Your task to perform on an android device: open chrome and create a bookmark for the current page Image 0: 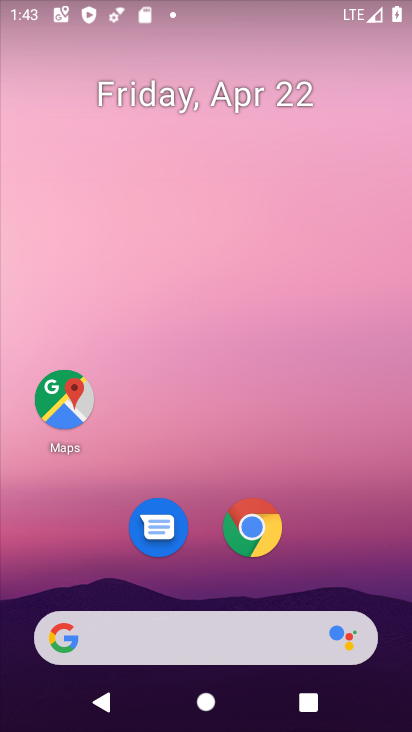
Step 0: click (252, 528)
Your task to perform on an android device: open chrome and create a bookmark for the current page Image 1: 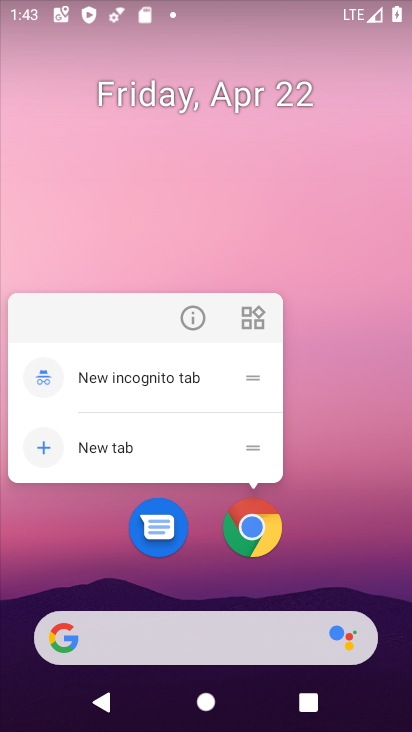
Step 1: click (252, 528)
Your task to perform on an android device: open chrome and create a bookmark for the current page Image 2: 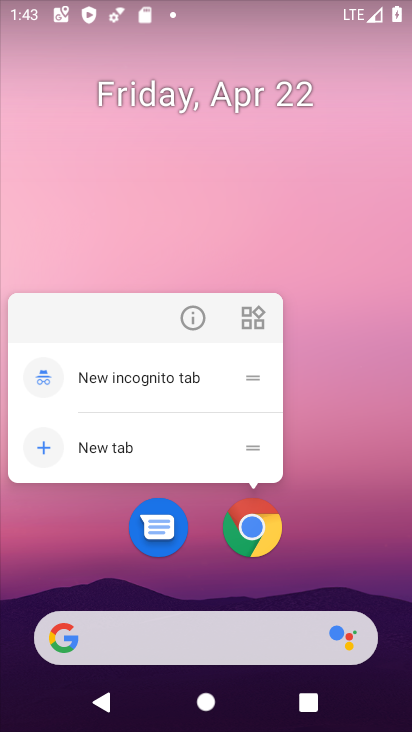
Step 2: click (252, 528)
Your task to perform on an android device: open chrome and create a bookmark for the current page Image 3: 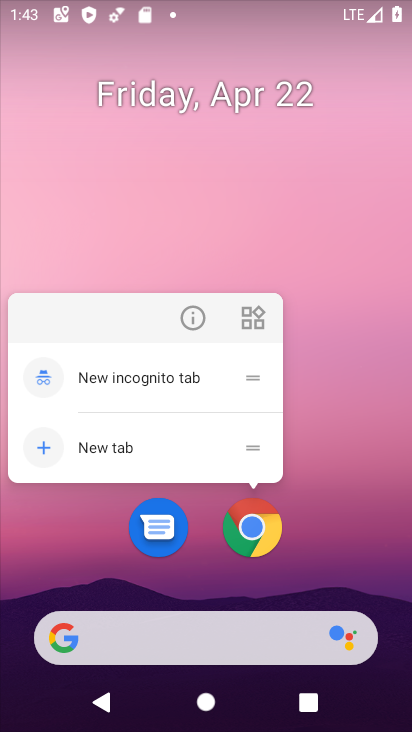
Step 3: click (252, 528)
Your task to perform on an android device: open chrome and create a bookmark for the current page Image 4: 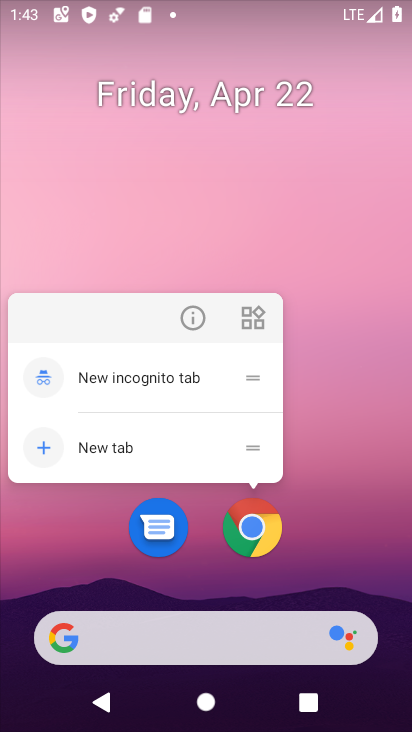
Step 4: click (255, 532)
Your task to perform on an android device: open chrome and create a bookmark for the current page Image 5: 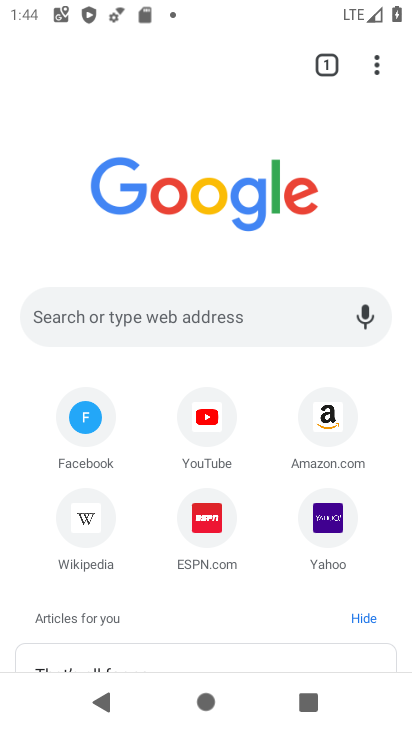
Step 5: drag from (378, 66) to (180, 66)
Your task to perform on an android device: open chrome and create a bookmark for the current page Image 6: 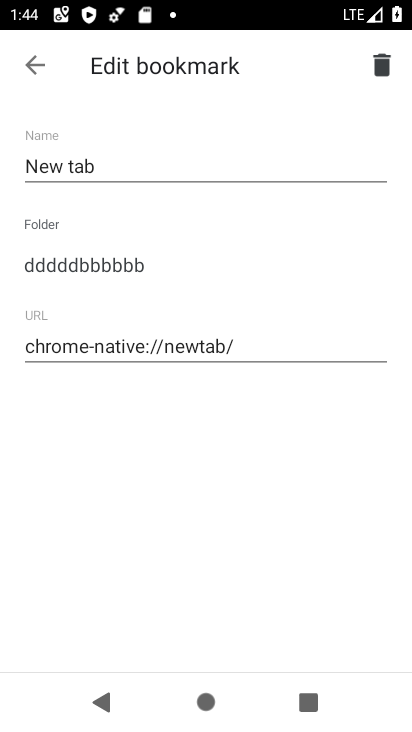
Step 6: click (199, 406)
Your task to perform on an android device: open chrome and create a bookmark for the current page Image 7: 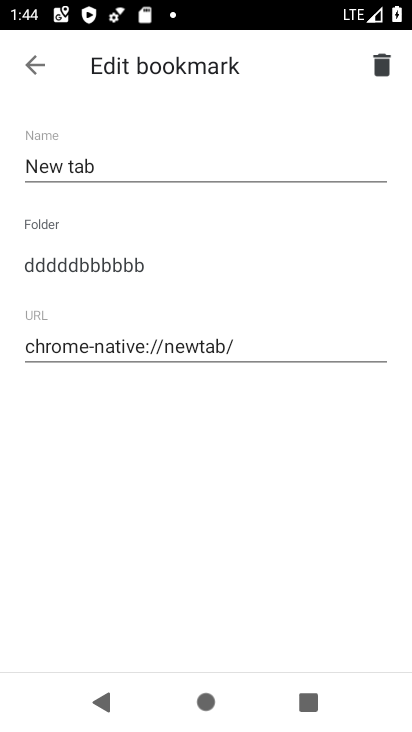
Step 7: click (141, 261)
Your task to perform on an android device: open chrome and create a bookmark for the current page Image 8: 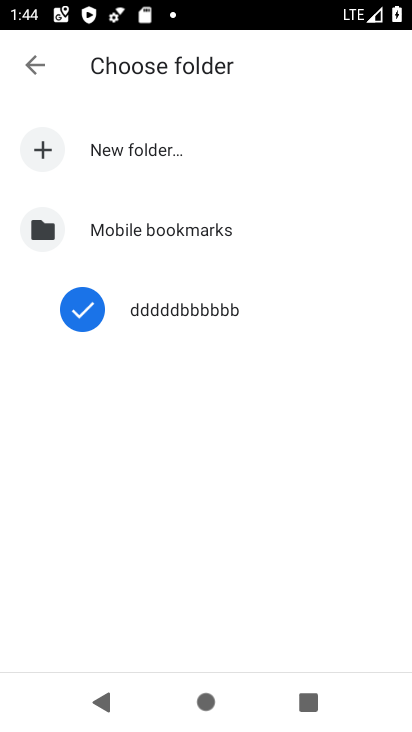
Step 8: click (48, 152)
Your task to perform on an android device: open chrome and create a bookmark for the current page Image 9: 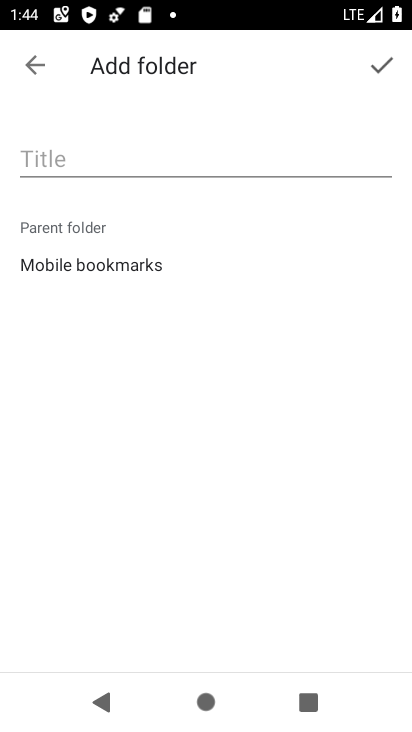
Step 9: click (78, 161)
Your task to perform on an android device: open chrome and create a bookmark for the current page Image 10: 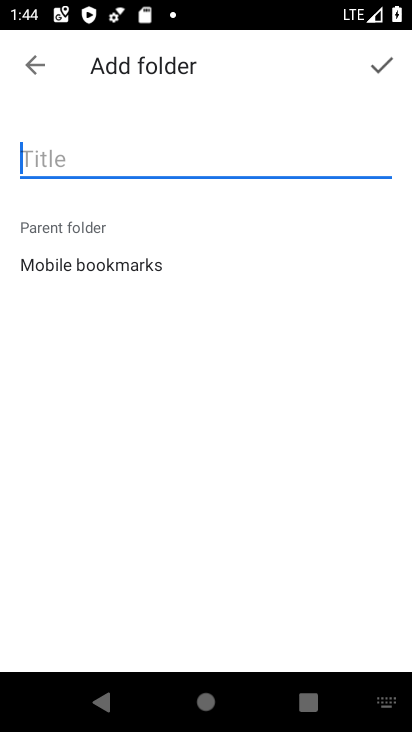
Step 10: type "private"
Your task to perform on an android device: open chrome and create a bookmark for the current page Image 11: 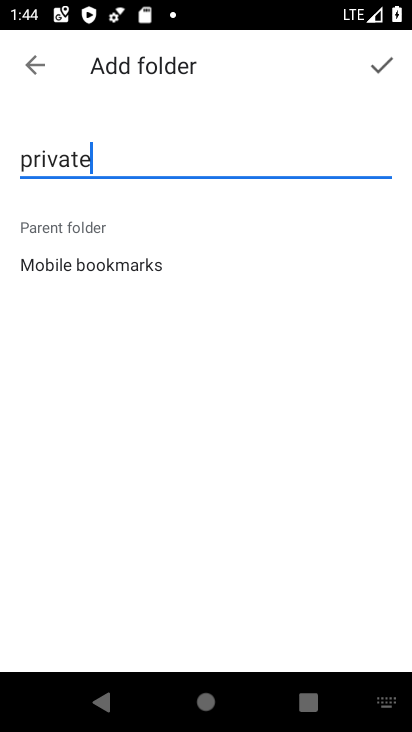
Step 11: click (380, 61)
Your task to perform on an android device: open chrome and create a bookmark for the current page Image 12: 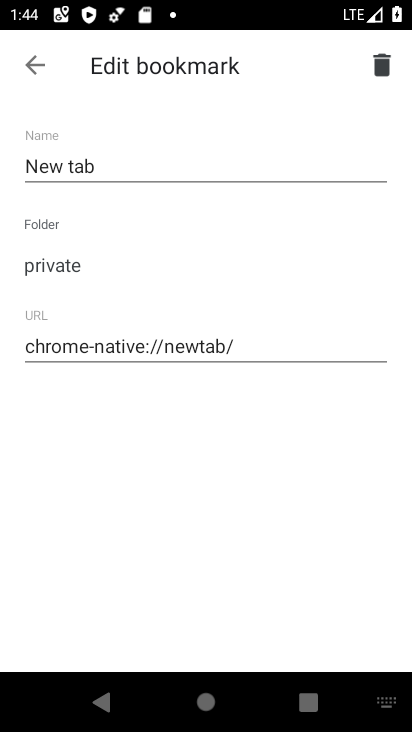
Step 12: click (33, 64)
Your task to perform on an android device: open chrome and create a bookmark for the current page Image 13: 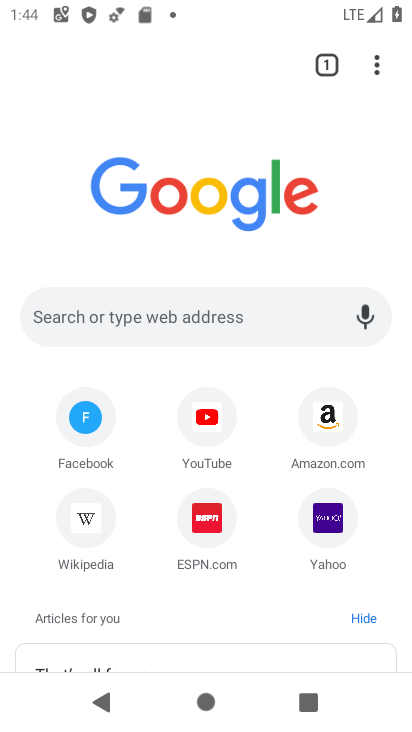
Step 13: task complete